Your task to perform on an android device: Open calendar and show me the third week of next month Image 0: 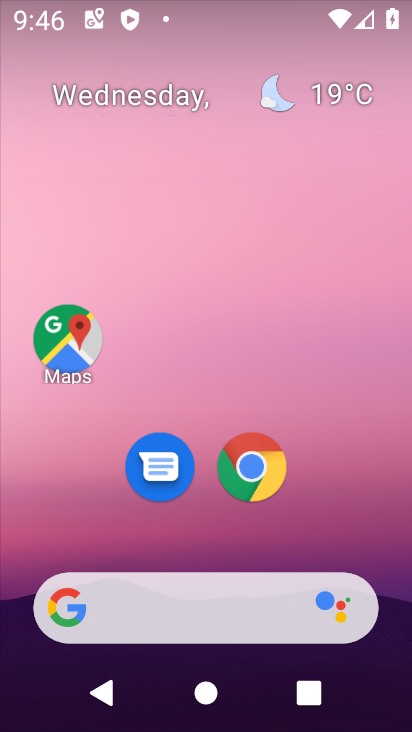
Step 0: click (134, 90)
Your task to perform on an android device: Open calendar and show me the third week of next month Image 1: 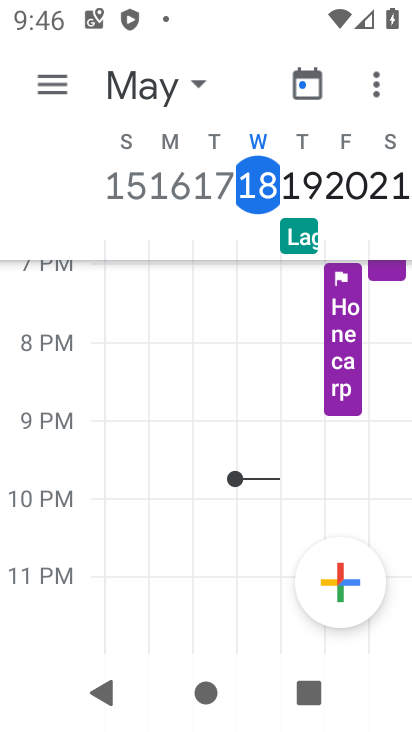
Step 1: click (192, 80)
Your task to perform on an android device: Open calendar and show me the third week of next month Image 2: 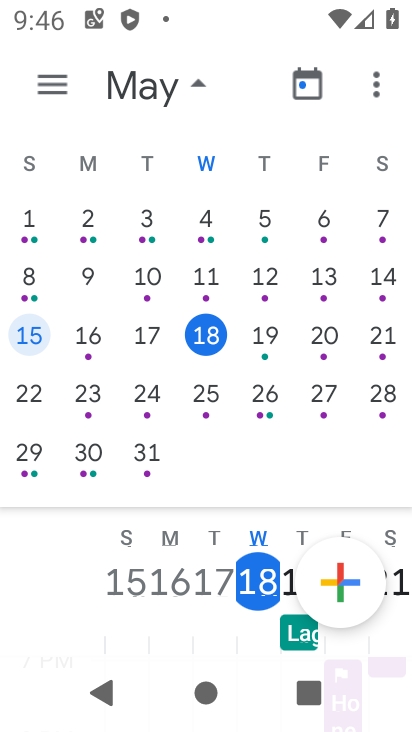
Step 2: drag from (345, 353) to (2, 256)
Your task to perform on an android device: Open calendar and show me the third week of next month Image 3: 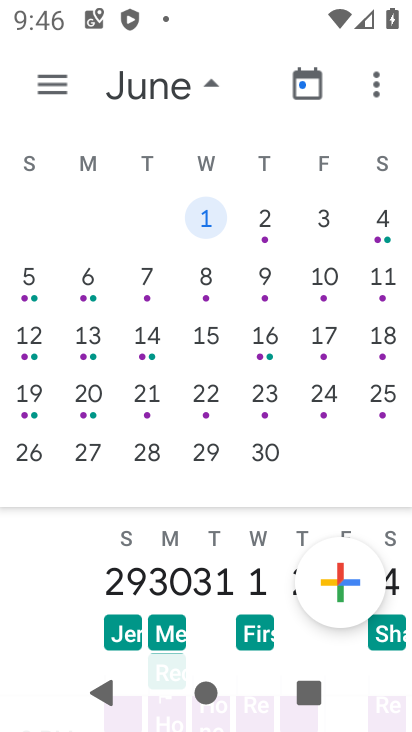
Step 3: click (44, 335)
Your task to perform on an android device: Open calendar and show me the third week of next month Image 4: 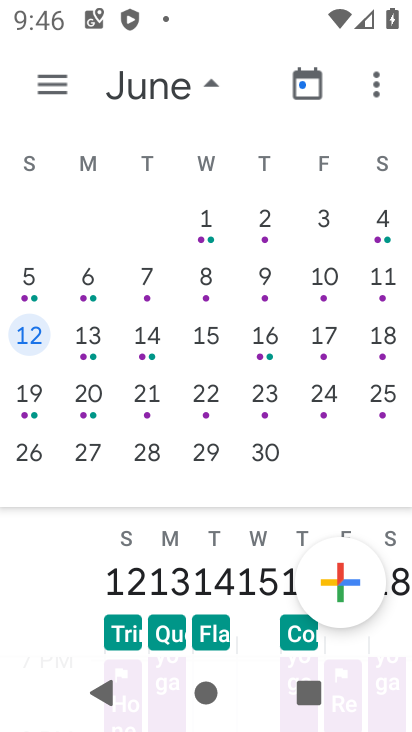
Step 4: task complete